Your task to perform on an android device: Go to ESPN.com Image 0: 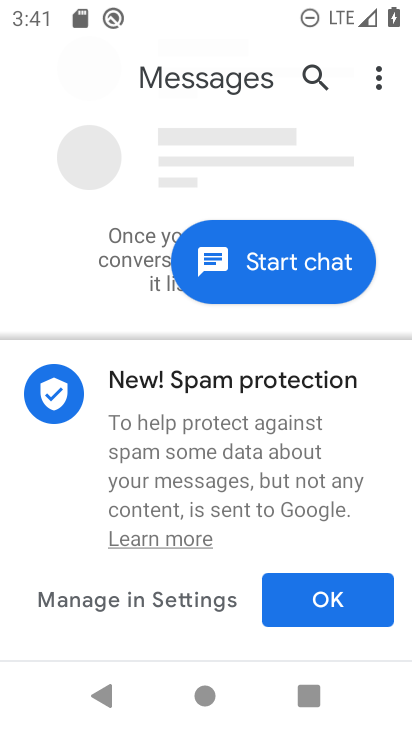
Step 0: press back button
Your task to perform on an android device: Go to ESPN.com Image 1: 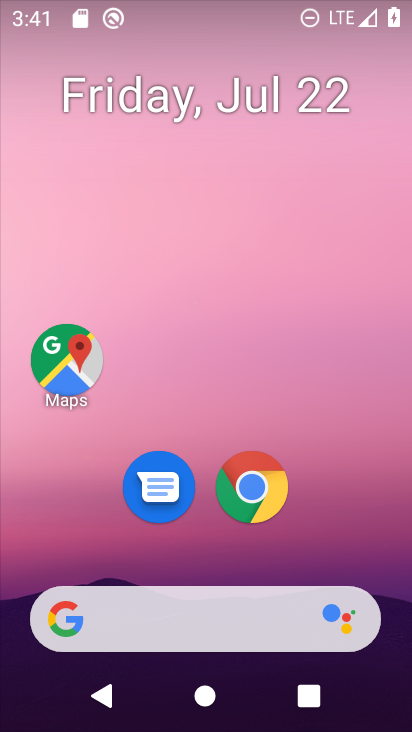
Step 1: click (227, 477)
Your task to perform on an android device: Go to ESPN.com Image 2: 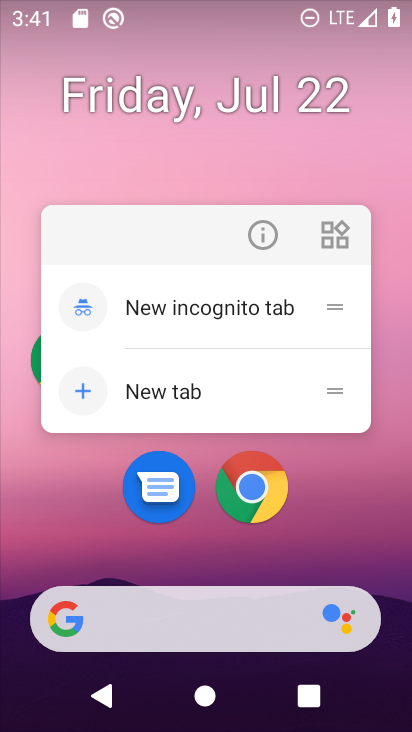
Step 2: click (248, 476)
Your task to perform on an android device: Go to ESPN.com Image 3: 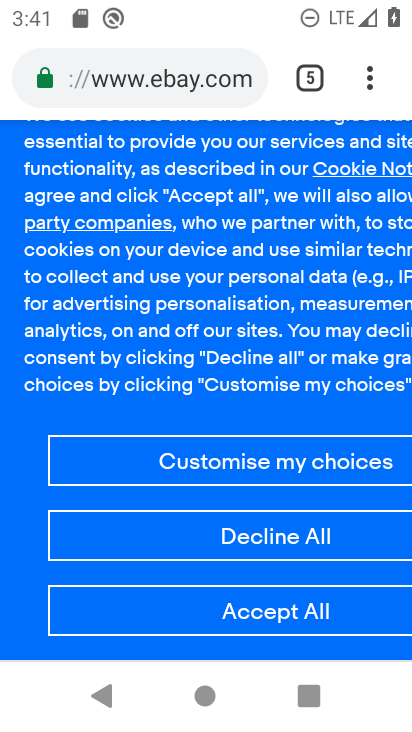
Step 3: click (316, 74)
Your task to perform on an android device: Go to ESPN.com Image 4: 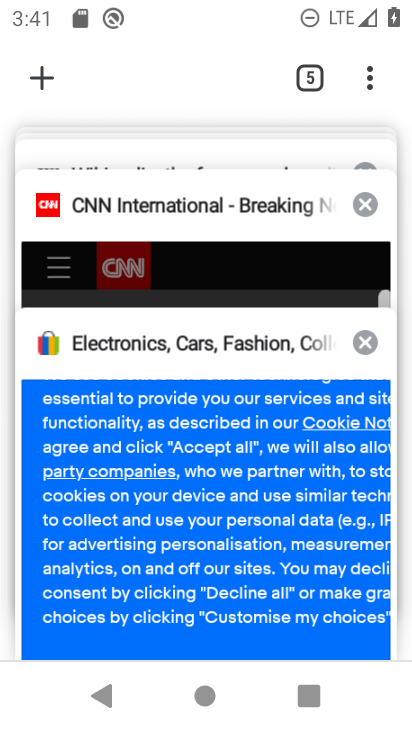
Step 4: click (40, 84)
Your task to perform on an android device: Go to ESPN.com Image 5: 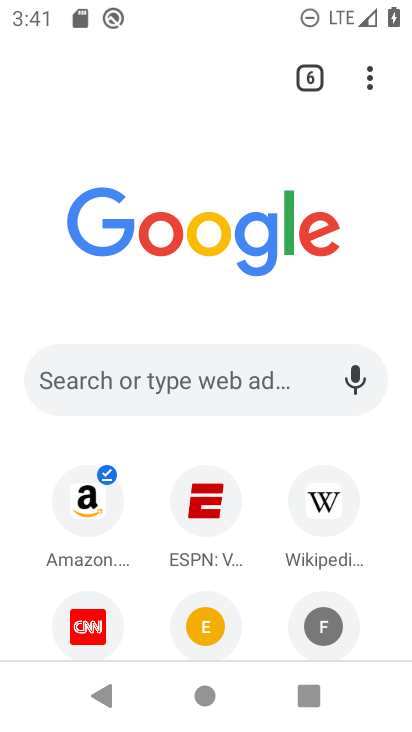
Step 5: click (195, 508)
Your task to perform on an android device: Go to ESPN.com Image 6: 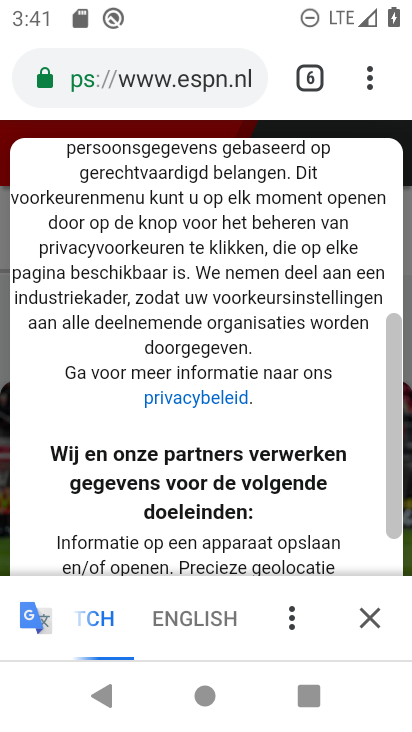
Step 6: task complete